Your task to perform on an android device: Do I have any events tomorrow? Image 0: 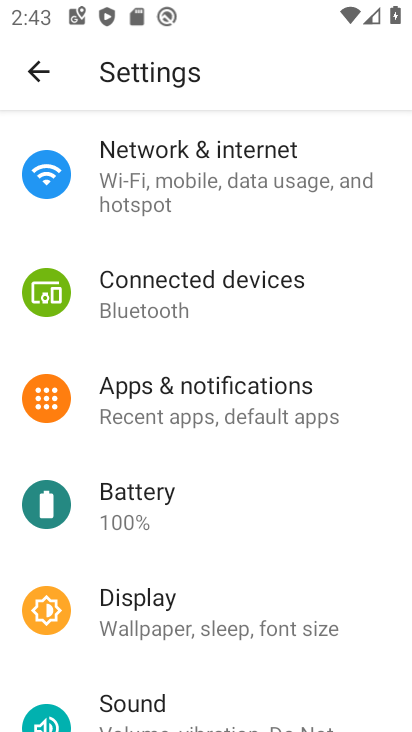
Step 0: drag from (225, 613) to (294, 169)
Your task to perform on an android device: Do I have any events tomorrow? Image 1: 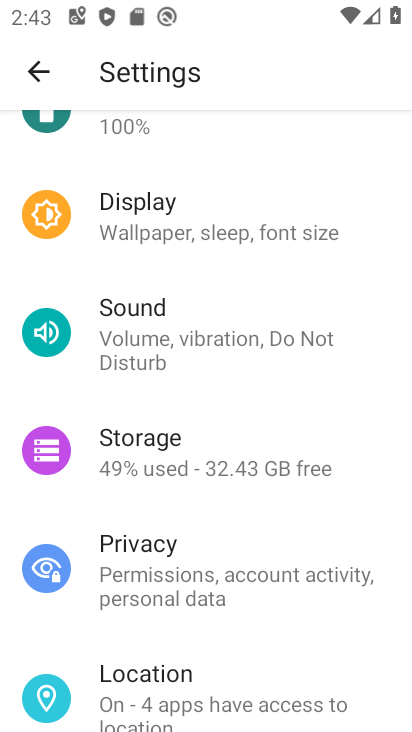
Step 1: drag from (247, 260) to (380, 729)
Your task to perform on an android device: Do I have any events tomorrow? Image 2: 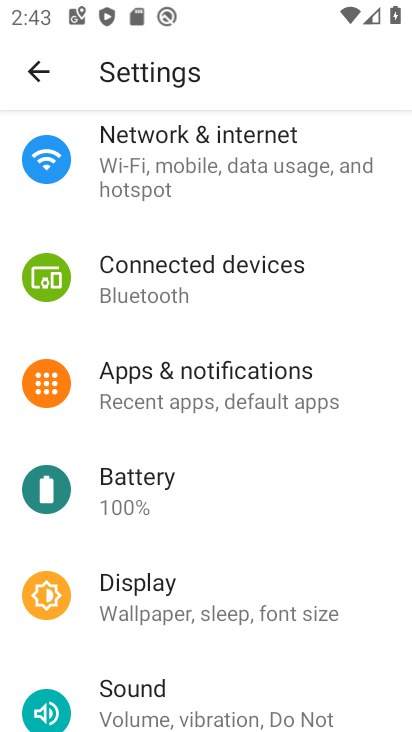
Step 2: press home button
Your task to perform on an android device: Do I have any events tomorrow? Image 3: 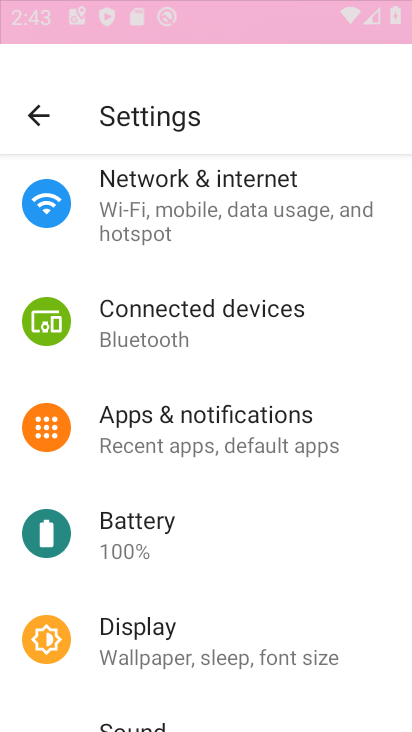
Step 3: drag from (180, 643) to (234, 29)
Your task to perform on an android device: Do I have any events tomorrow? Image 4: 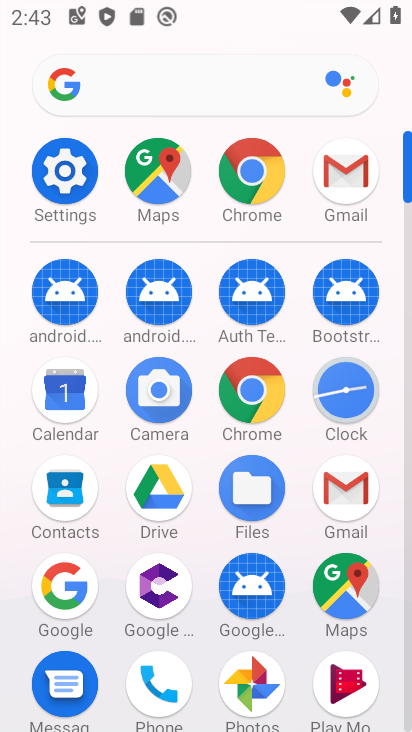
Step 4: click (69, 388)
Your task to perform on an android device: Do I have any events tomorrow? Image 5: 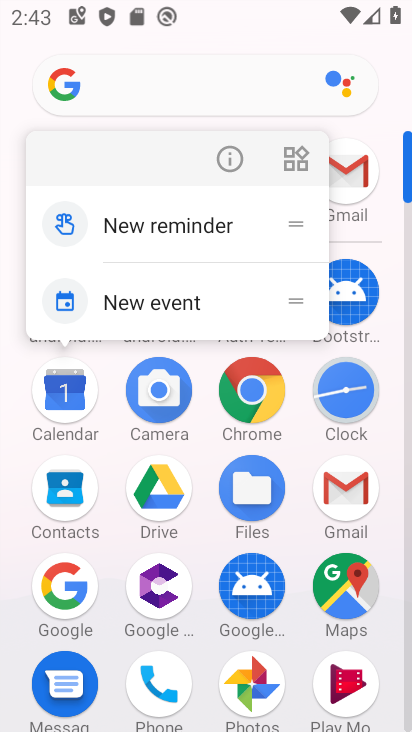
Step 5: click (215, 158)
Your task to perform on an android device: Do I have any events tomorrow? Image 6: 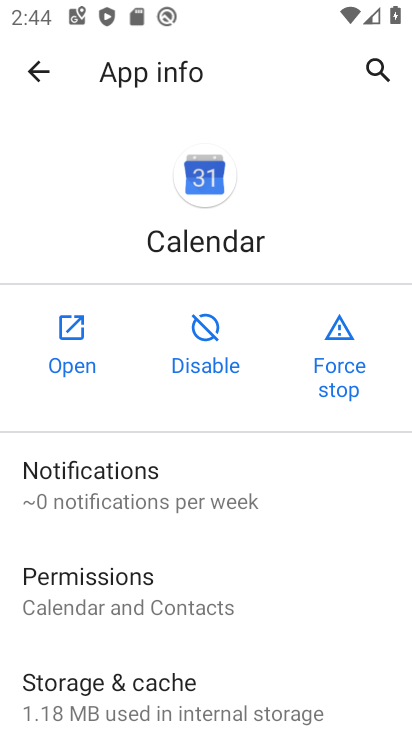
Step 6: click (57, 318)
Your task to perform on an android device: Do I have any events tomorrow? Image 7: 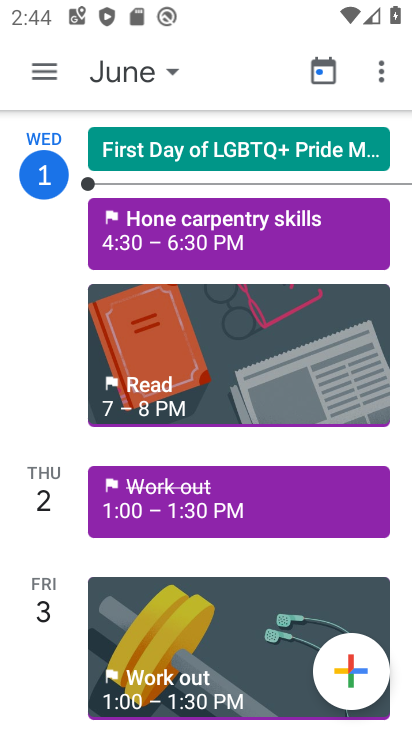
Step 7: click (160, 75)
Your task to perform on an android device: Do I have any events tomorrow? Image 8: 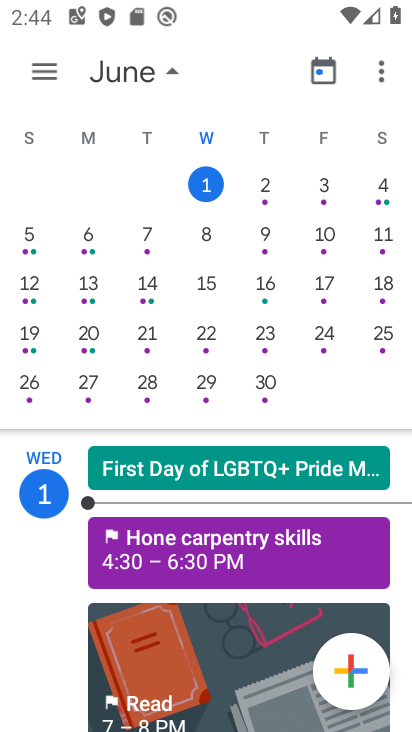
Step 8: click (261, 177)
Your task to perform on an android device: Do I have any events tomorrow? Image 9: 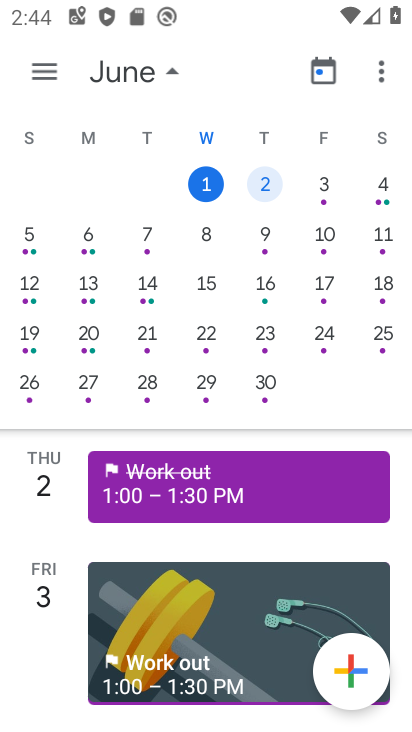
Step 9: task complete